Your task to perform on an android device: What's the weather going to be this weekend? Image 0: 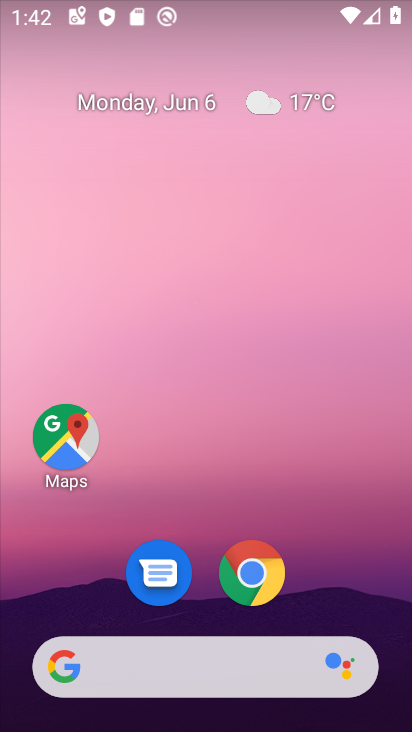
Step 0: click (262, 108)
Your task to perform on an android device: What's the weather going to be this weekend? Image 1: 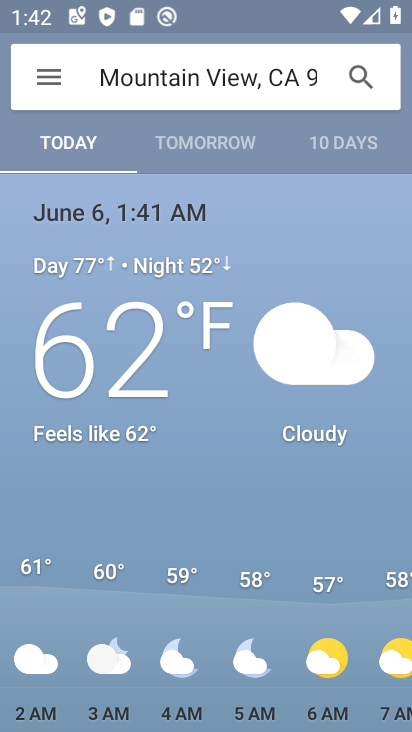
Step 1: click (333, 125)
Your task to perform on an android device: What's the weather going to be this weekend? Image 2: 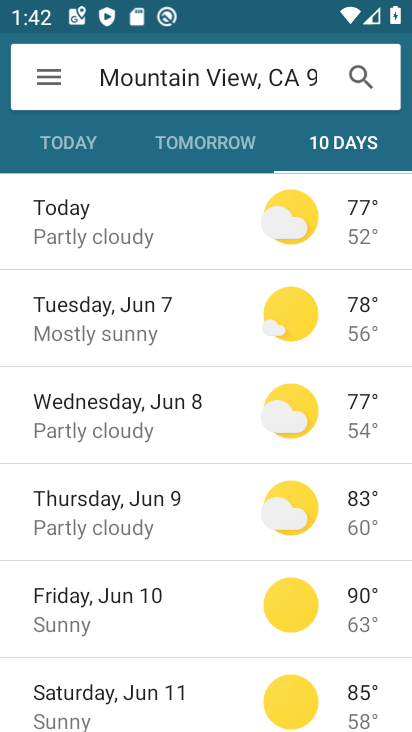
Step 2: task complete